Your task to perform on an android device: open app "Nova Launcher" (install if not already installed) Image 0: 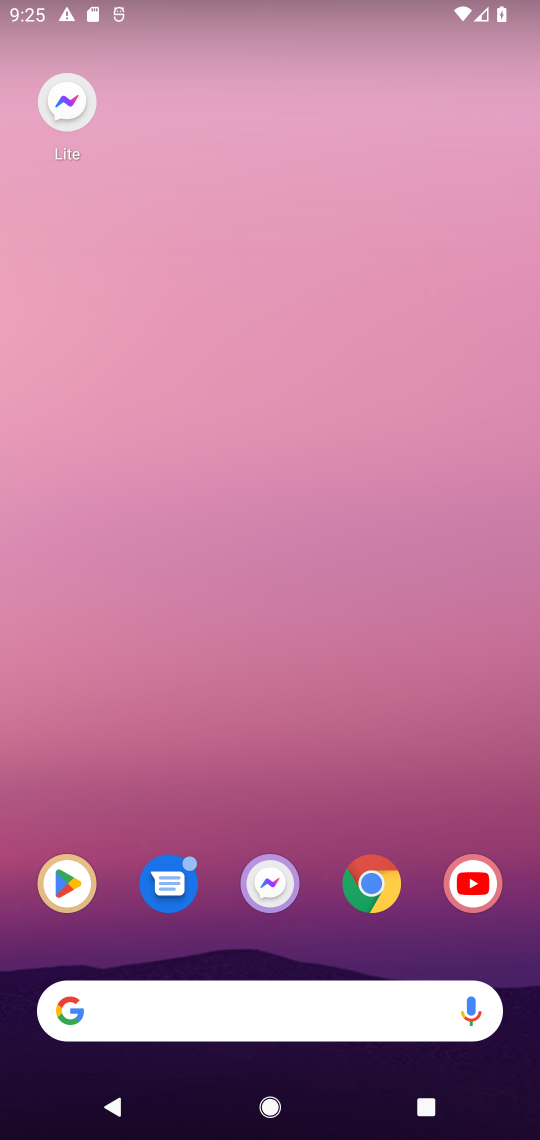
Step 0: click (530, 375)
Your task to perform on an android device: open app "Nova Launcher" (install if not already installed) Image 1: 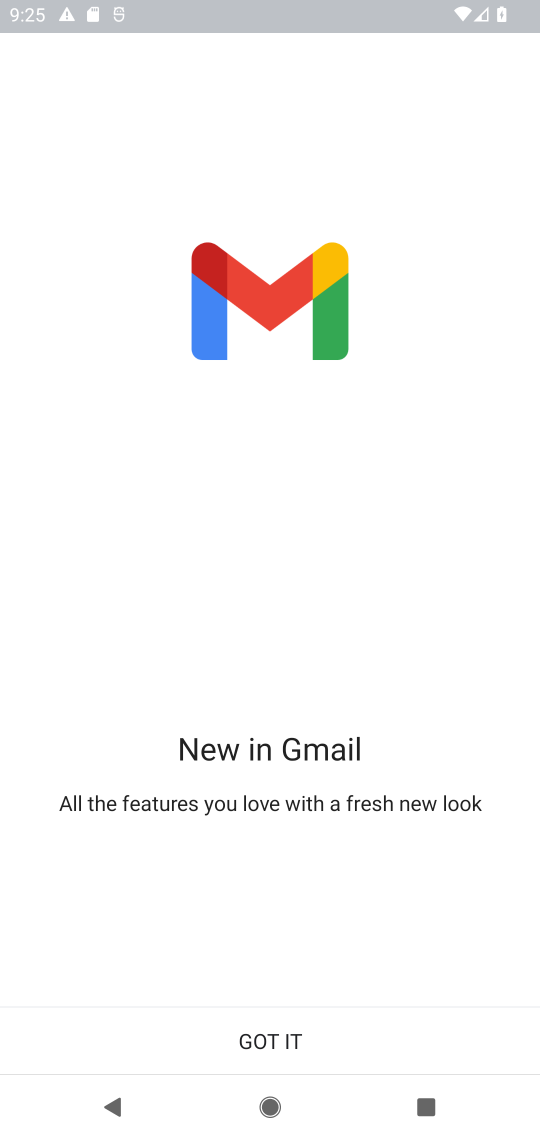
Step 1: press home button
Your task to perform on an android device: open app "Nova Launcher" (install if not already installed) Image 2: 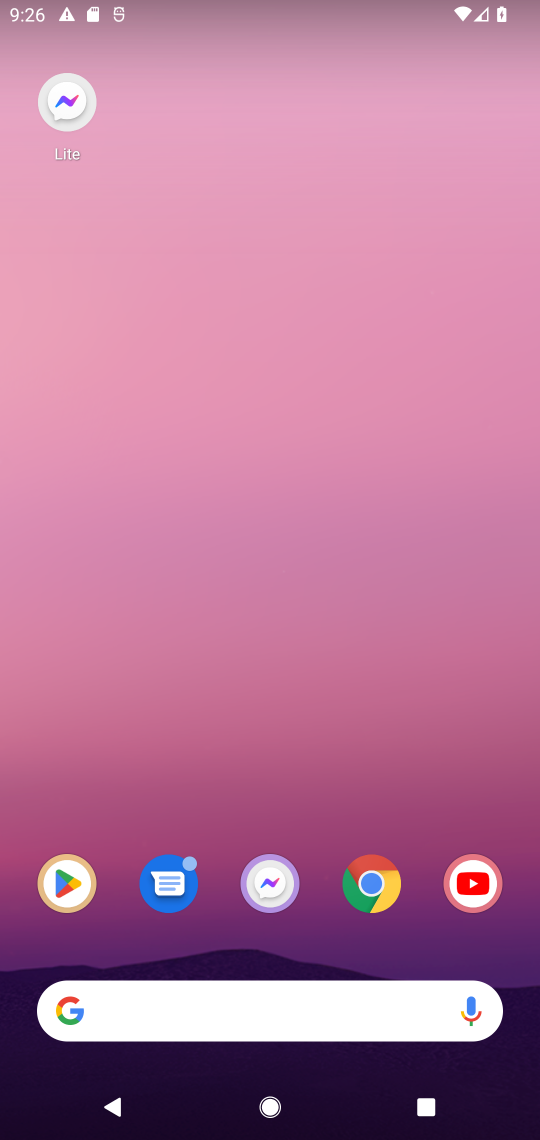
Step 2: click (55, 875)
Your task to perform on an android device: open app "Nova Launcher" (install if not already installed) Image 3: 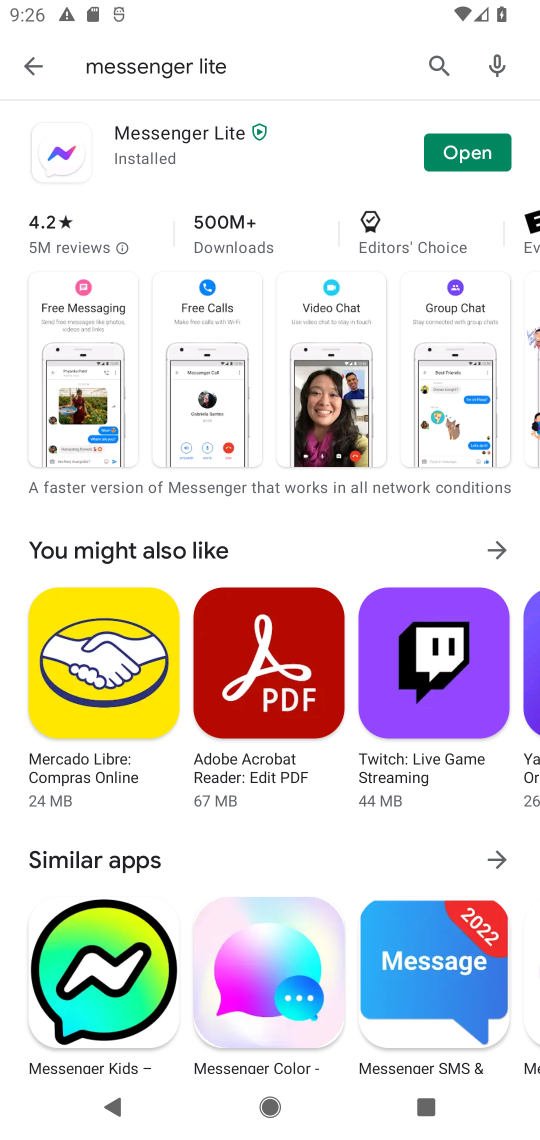
Step 3: click (161, 74)
Your task to perform on an android device: open app "Nova Launcher" (install if not already installed) Image 4: 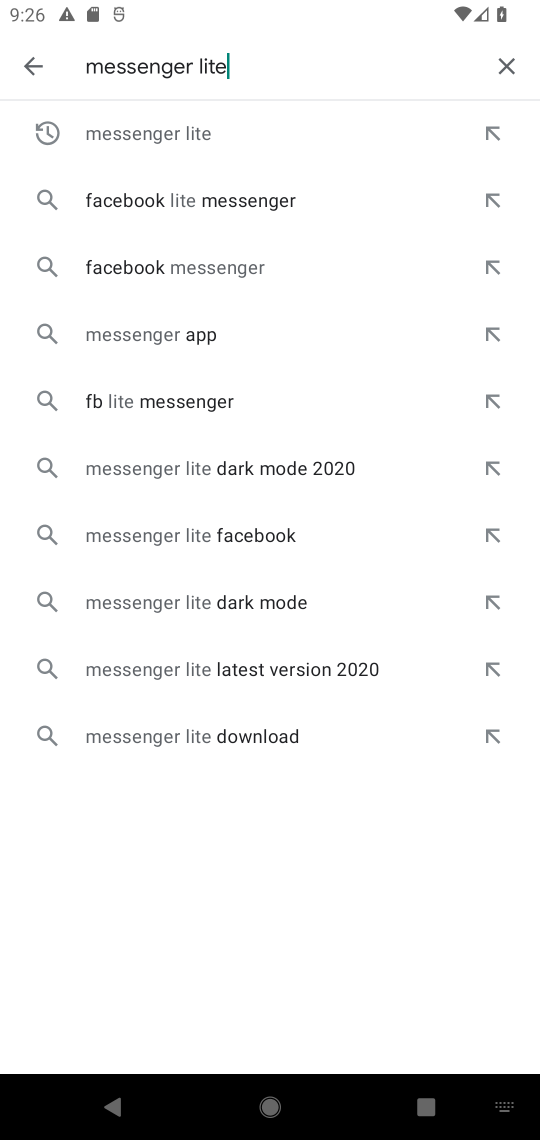
Step 4: click (510, 63)
Your task to perform on an android device: open app "Nova Launcher" (install if not already installed) Image 5: 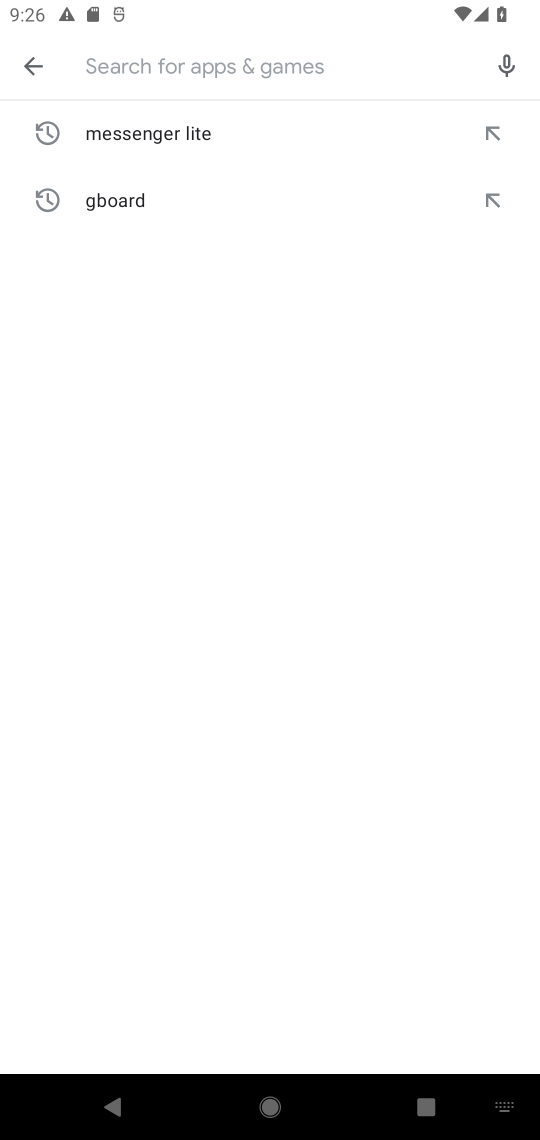
Step 5: type "Nova Launcher"
Your task to perform on an android device: open app "Nova Launcher" (install if not already installed) Image 6: 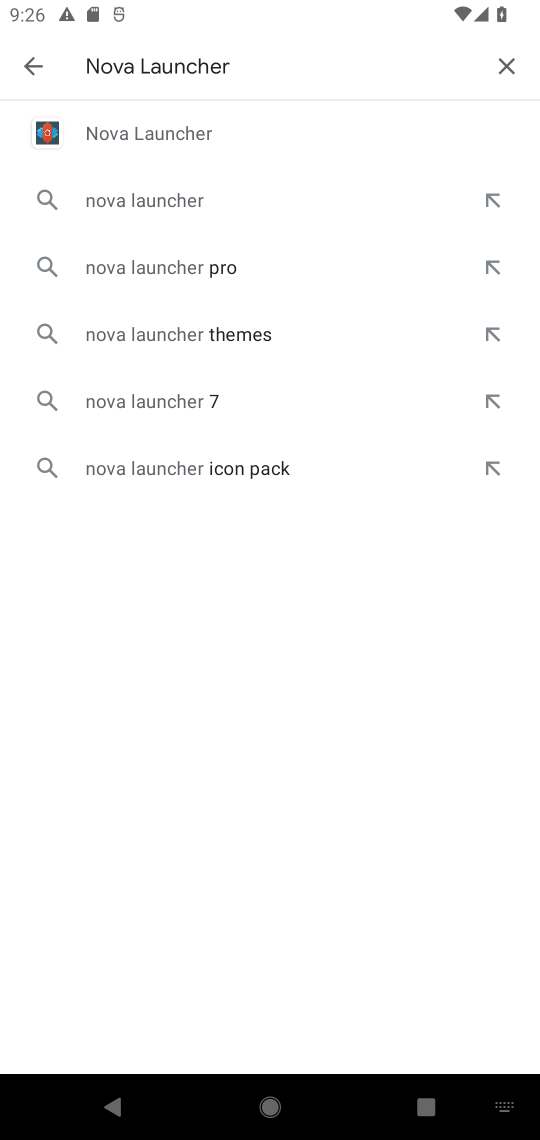
Step 6: click (278, 120)
Your task to perform on an android device: open app "Nova Launcher" (install if not already installed) Image 7: 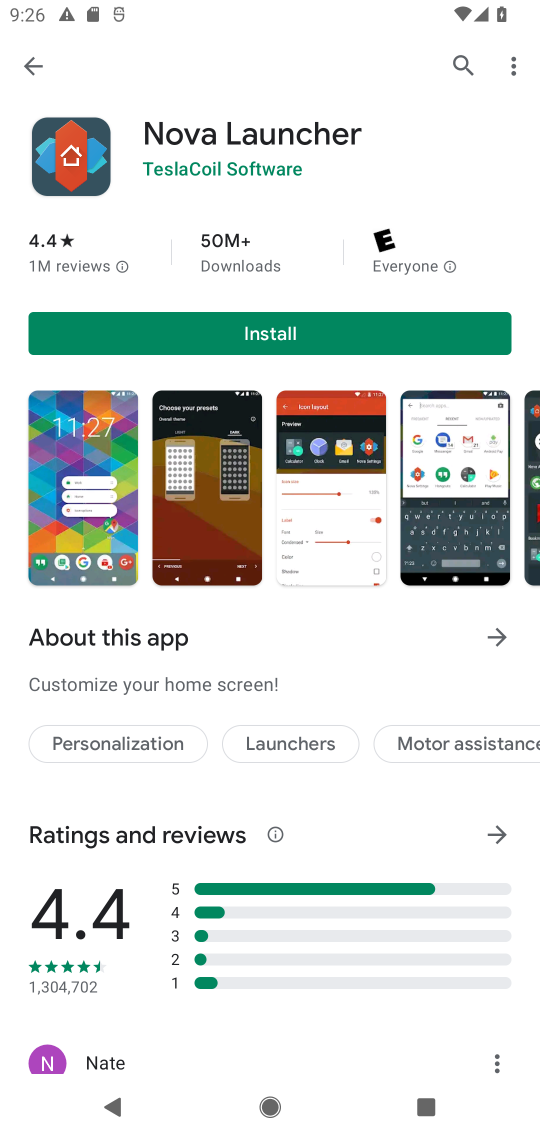
Step 7: click (245, 325)
Your task to perform on an android device: open app "Nova Launcher" (install if not already installed) Image 8: 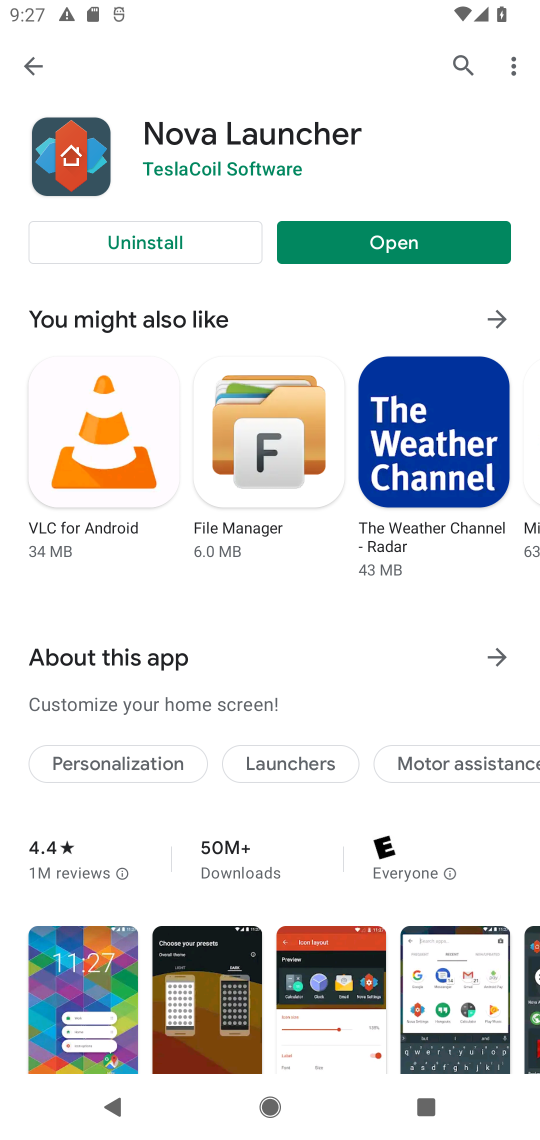
Step 8: click (414, 242)
Your task to perform on an android device: open app "Nova Launcher" (install if not already installed) Image 9: 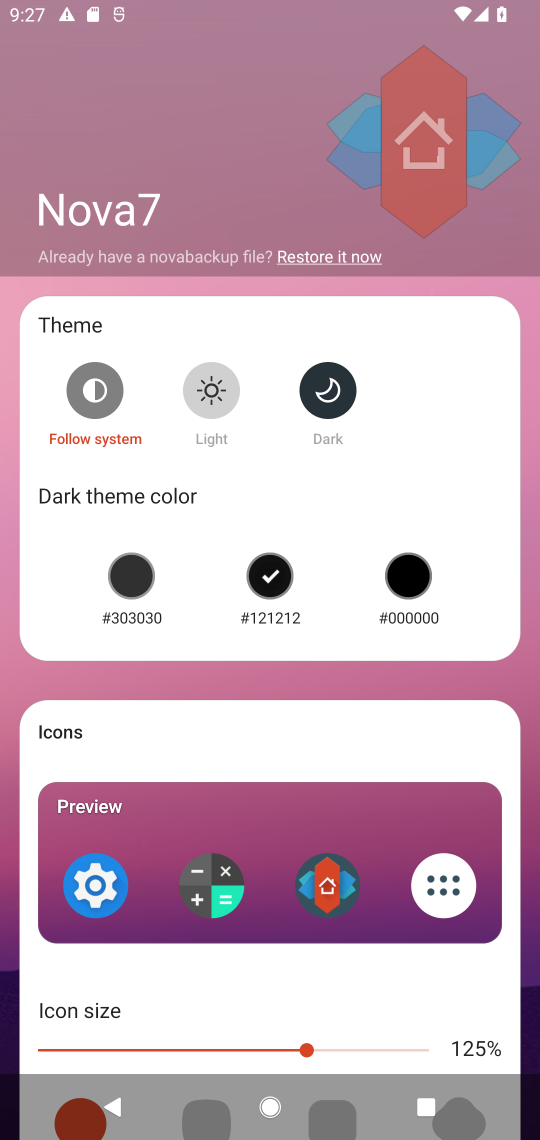
Step 9: task complete